Your task to perform on an android device: toggle show notifications on the lock screen Image 0: 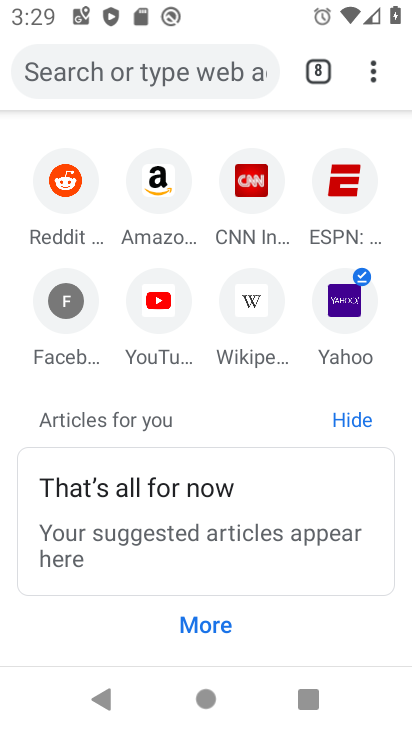
Step 0: press home button
Your task to perform on an android device: toggle show notifications on the lock screen Image 1: 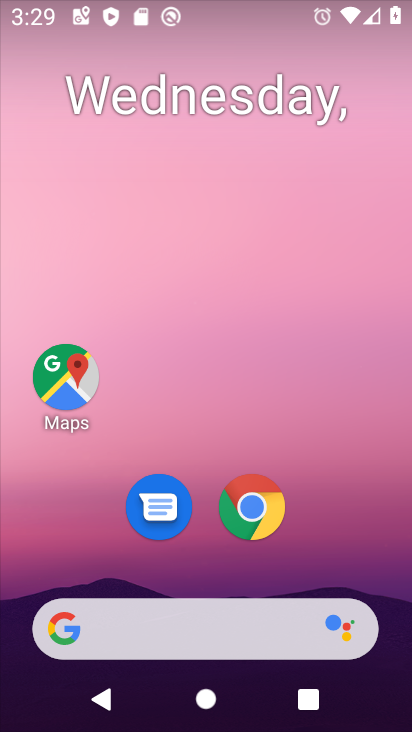
Step 1: drag from (312, 549) to (402, 29)
Your task to perform on an android device: toggle show notifications on the lock screen Image 2: 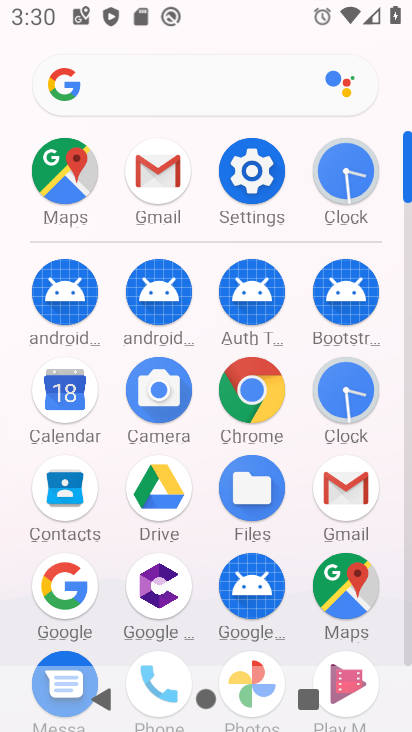
Step 2: click (271, 163)
Your task to perform on an android device: toggle show notifications on the lock screen Image 3: 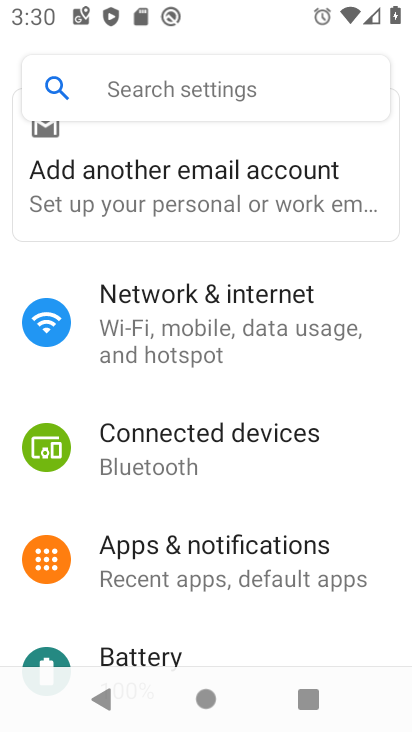
Step 3: drag from (262, 616) to (311, 147)
Your task to perform on an android device: toggle show notifications on the lock screen Image 4: 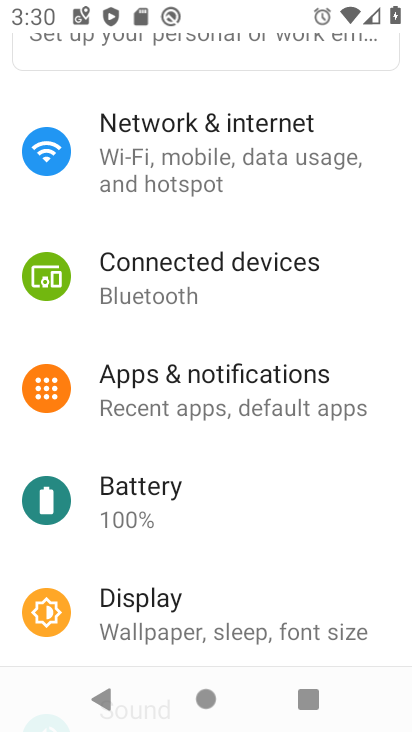
Step 4: click (167, 402)
Your task to perform on an android device: toggle show notifications on the lock screen Image 5: 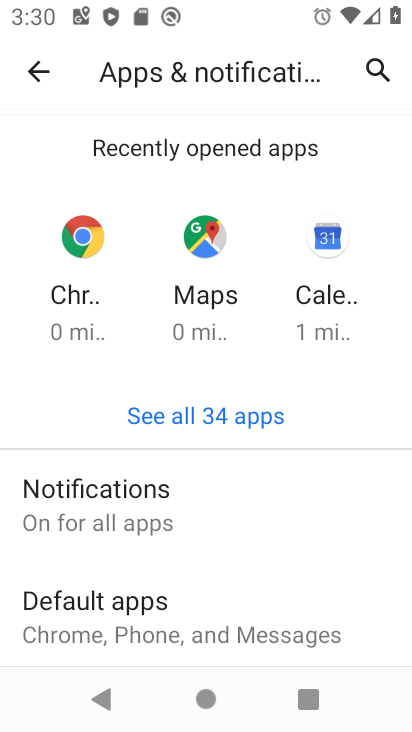
Step 5: click (171, 495)
Your task to perform on an android device: toggle show notifications on the lock screen Image 6: 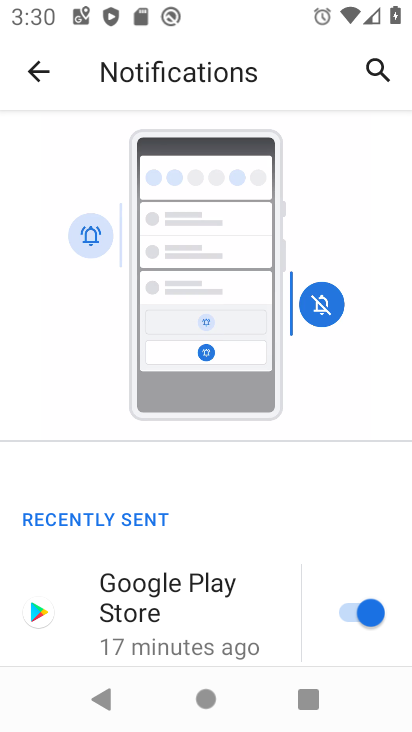
Step 6: drag from (226, 528) to (230, 232)
Your task to perform on an android device: toggle show notifications on the lock screen Image 7: 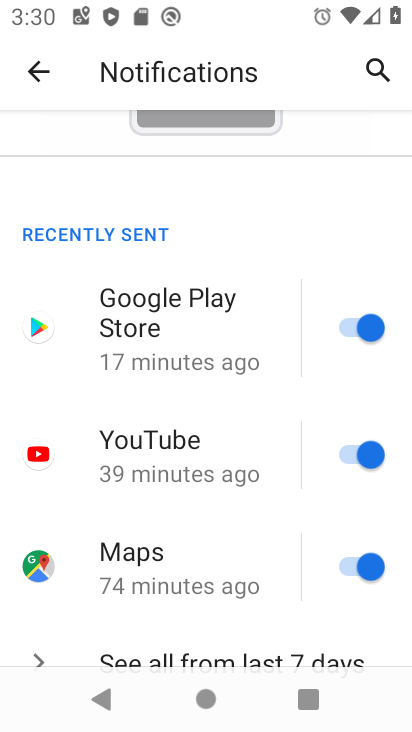
Step 7: drag from (261, 517) to (249, 58)
Your task to perform on an android device: toggle show notifications on the lock screen Image 8: 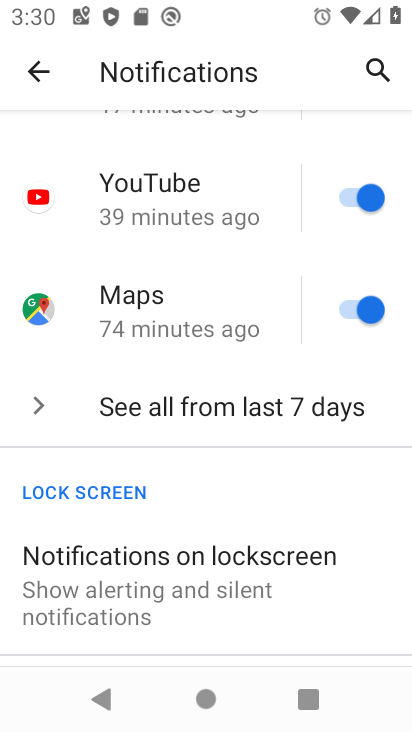
Step 8: click (192, 600)
Your task to perform on an android device: toggle show notifications on the lock screen Image 9: 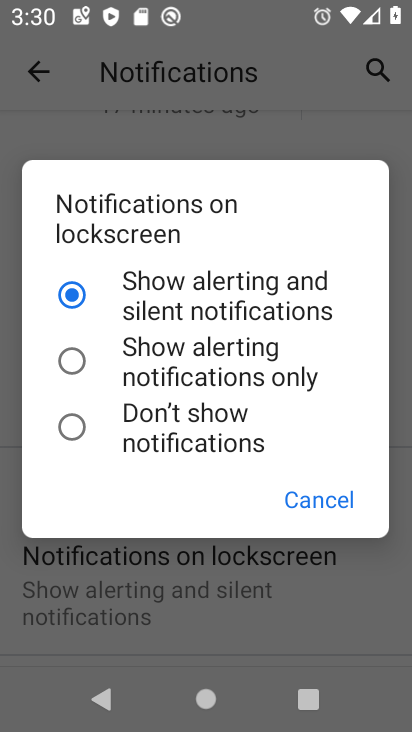
Step 9: click (77, 367)
Your task to perform on an android device: toggle show notifications on the lock screen Image 10: 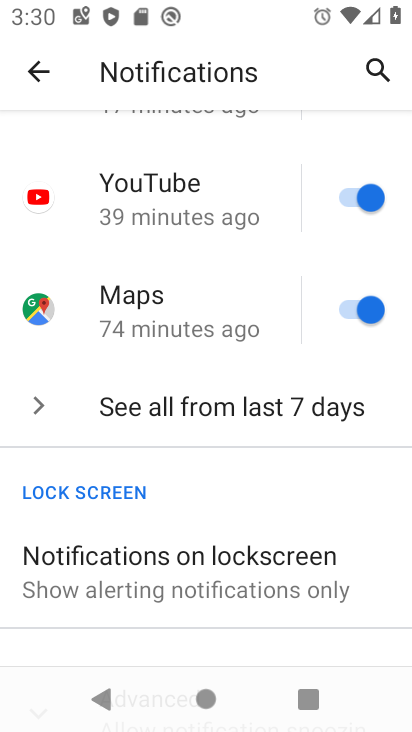
Step 10: task complete